Your task to perform on an android device: Open Google Image 0: 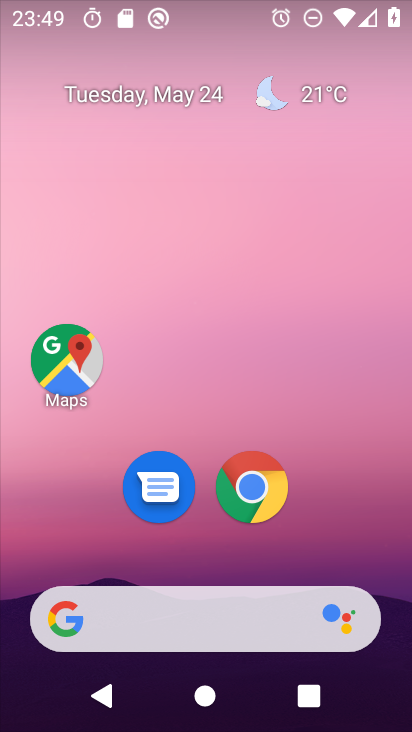
Step 0: drag from (373, 557) to (354, 17)
Your task to perform on an android device: Open Google Image 1: 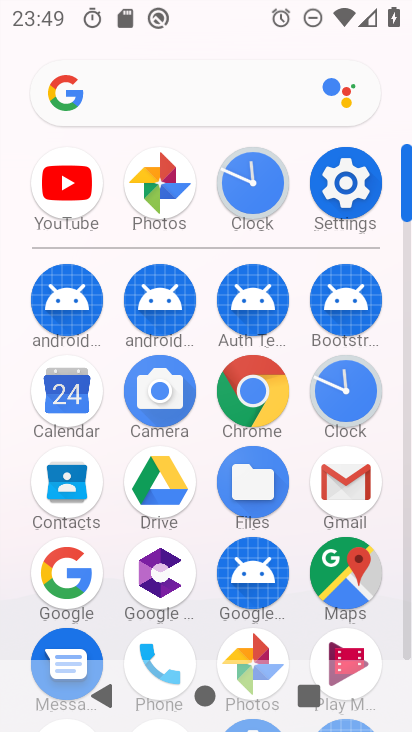
Step 1: click (69, 584)
Your task to perform on an android device: Open Google Image 2: 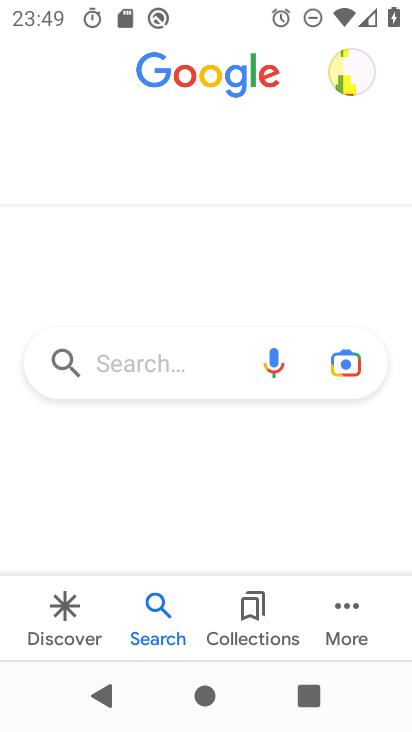
Step 2: task complete